Your task to perform on an android device: Search for seafood restaurants on Google Maps Image 0: 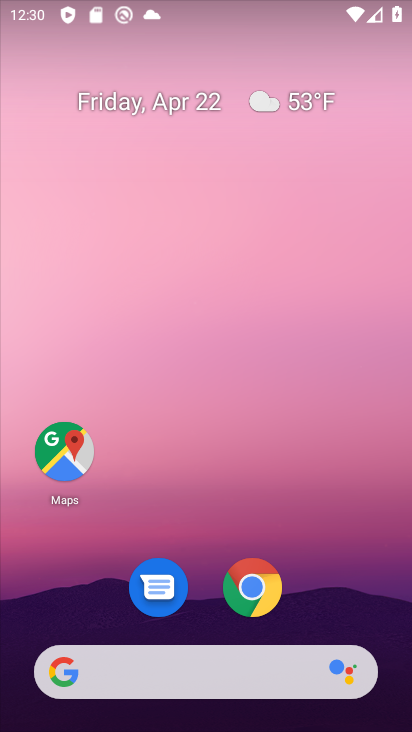
Step 0: drag from (348, 494) to (369, 31)
Your task to perform on an android device: Search for seafood restaurants on Google Maps Image 1: 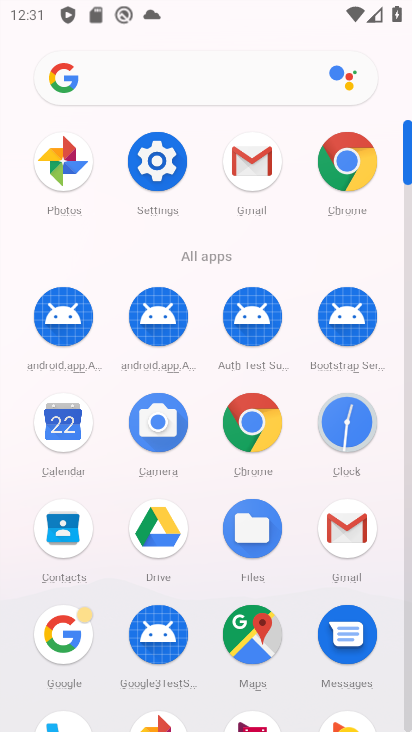
Step 1: drag from (279, 259) to (321, 14)
Your task to perform on an android device: Search for seafood restaurants on Google Maps Image 2: 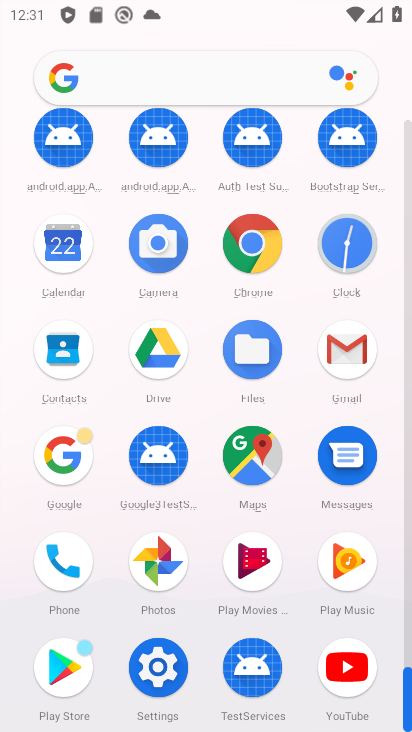
Step 2: click (252, 462)
Your task to perform on an android device: Search for seafood restaurants on Google Maps Image 3: 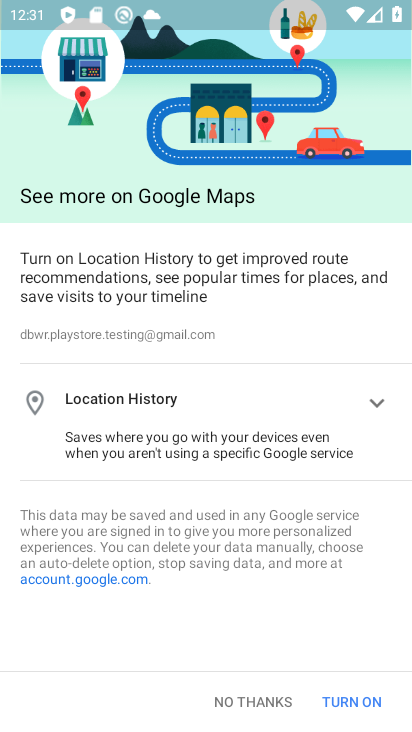
Step 3: click (277, 696)
Your task to perform on an android device: Search for seafood restaurants on Google Maps Image 4: 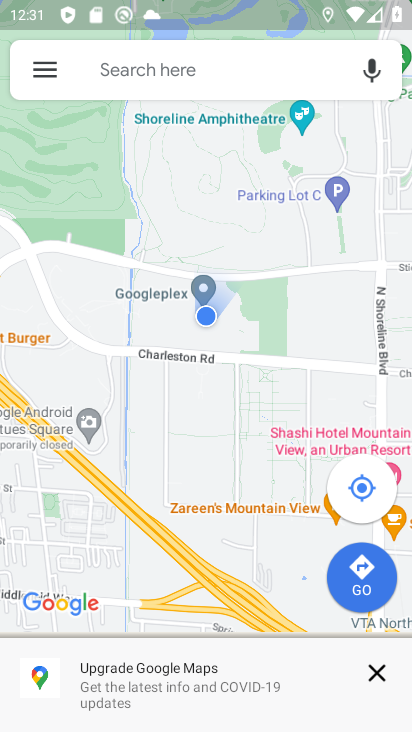
Step 4: click (118, 65)
Your task to perform on an android device: Search for seafood restaurants on Google Maps Image 5: 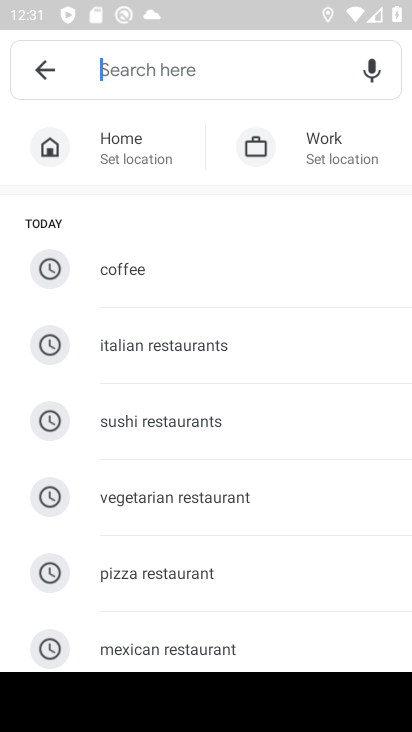
Step 5: type " seafood restaurants"
Your task to perform on an android device: Search for seafood restaurants on Google Maps Image 6: 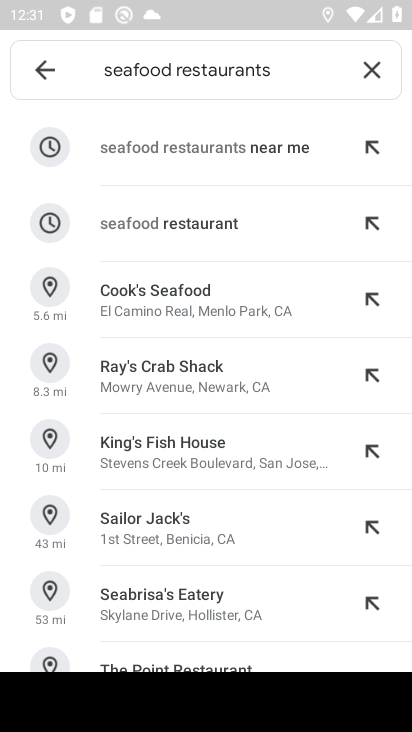
Step 6: click (178, 223)
Your task to perform on an android device: Search for seafood restaurants on Google Maps Image 7: 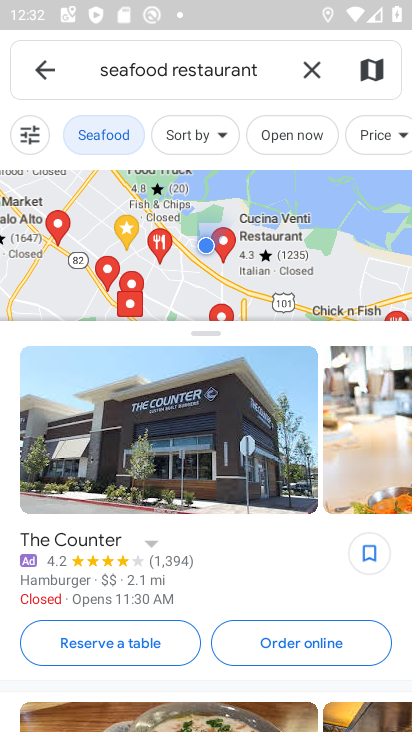
Step 7: task complete